Your task to perform on an android device: open chrome privacy settings Image 0: 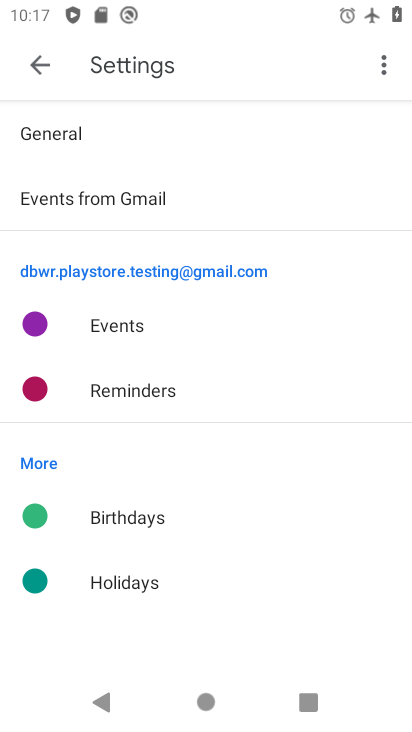
Step 0: press home button
Your task to perform on an android device: open chrome privacy settings Image 1: 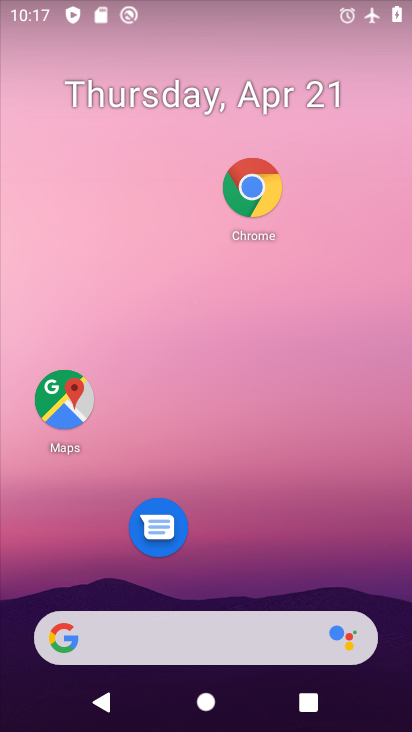
Step 1: drag from (264, 598) to (302, 190)
Your task to perform on an android device: open chrome privacy settings Image 2: 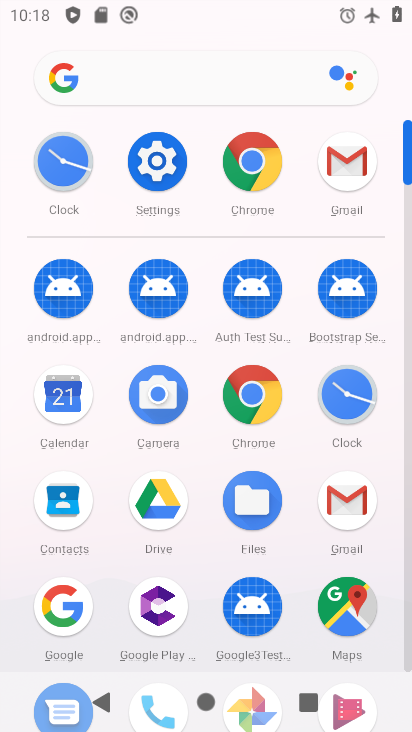
Step 2: click (164, 183)
Your task to perform on an android device: open chrome privacy settings Image 3: 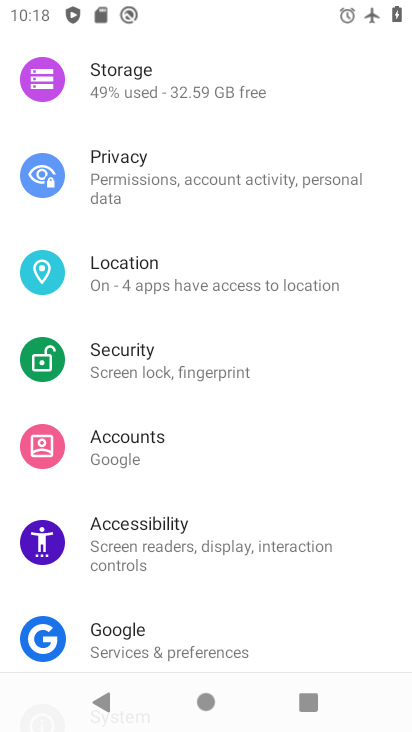
Step 3: drag from (201, 519) to (260, 254)
Your task to perform on an android device: open chrome privacy settings Image 4: 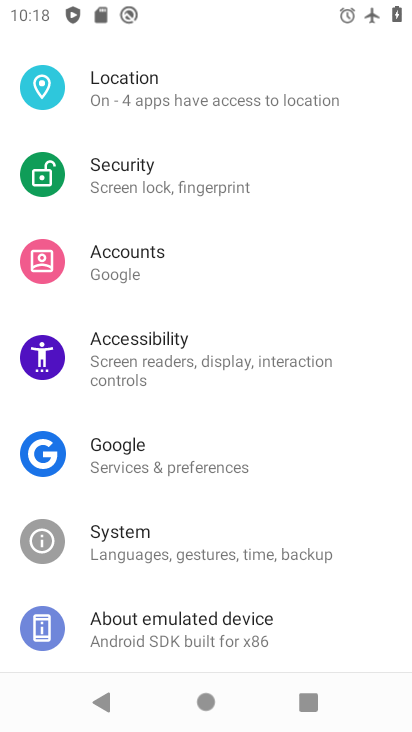
Step 4: drag from (218, 499) to (243, 317)
Your task to perform on an android device: open chrome privacy settings Image 5: 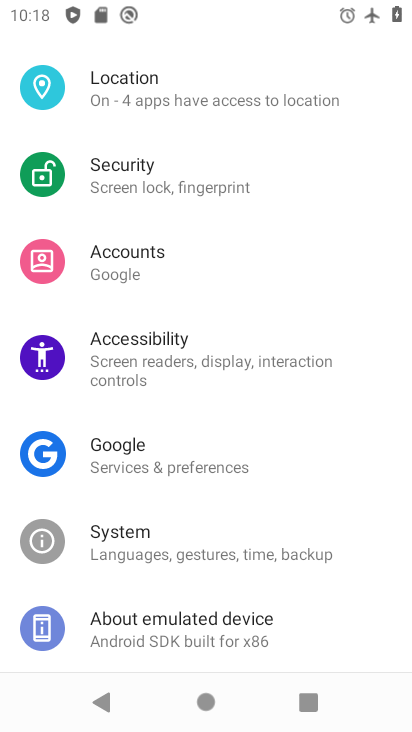
Step 5: drag from (213, 562) to (216, 663)
Your task to perform on an android device: open chrome privacy settings Image 6: 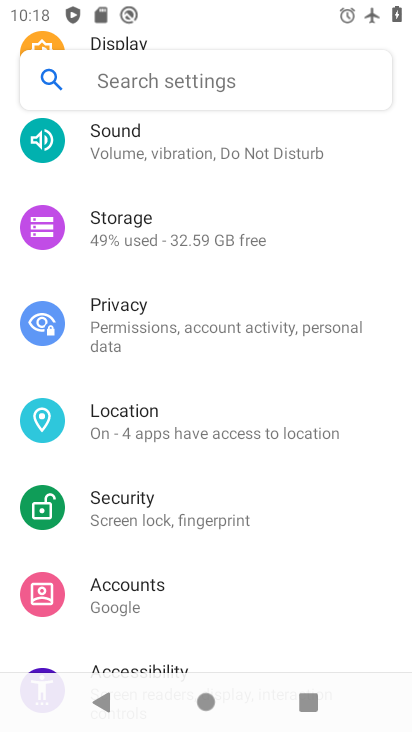
Step 6: click (238, 331)
Your task to perform on an android device: open chrome privacy settings Image 7: 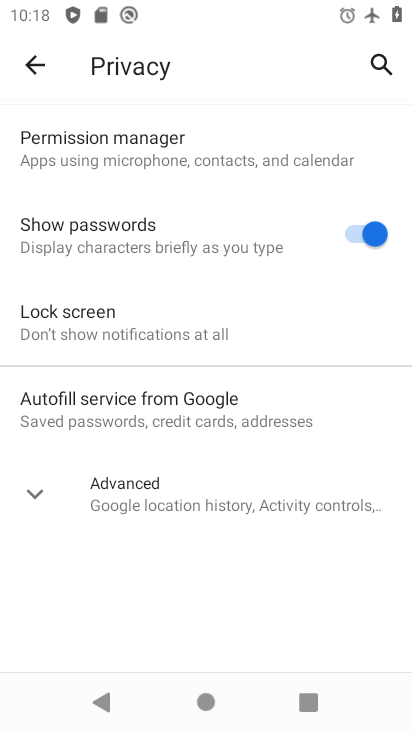
Step 7: task complete